Your task to perform on an android device: Show me popular games on the Play Store Image 0: 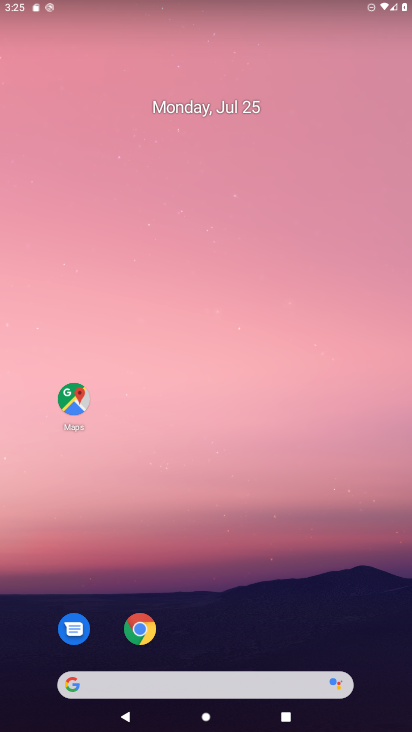
Step 0: drag from (283, 609) to (322, 171)
Your task to perform on an android device: Show me popular games on the Play Store Image 1: 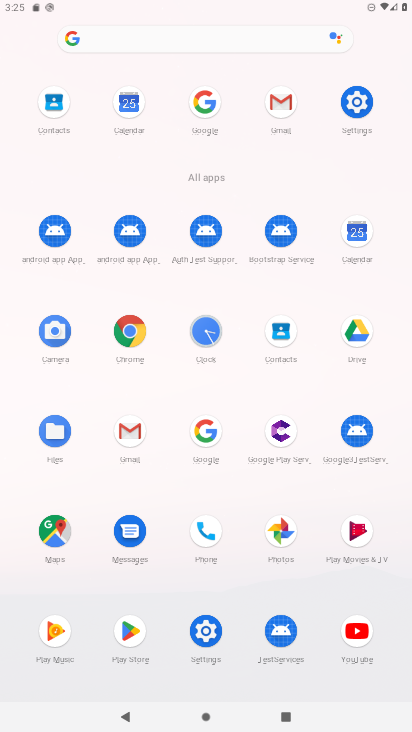
Step 1: click (126, 632)
Your task to perform on an android device: Show me popular games on the Play Store Image 2: 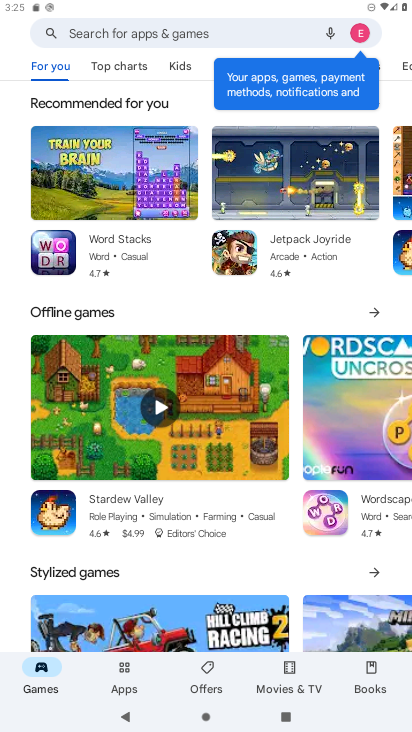
Step 2: click (117, 68)
Your task to perform on an android device: Show me popular games on the Play Store Image 3: 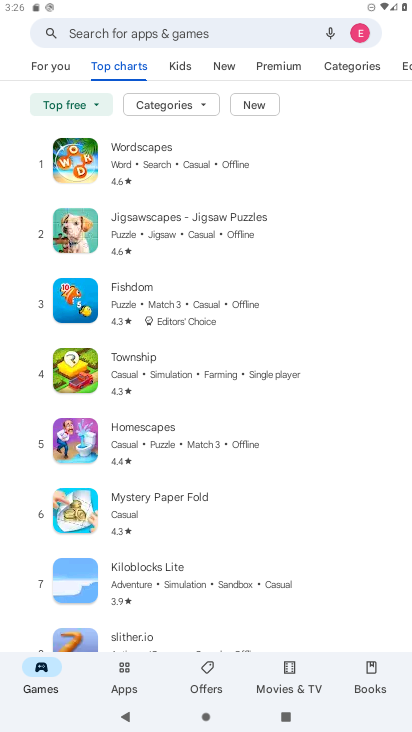
Step 3: task complete